Your task to perform on an android device: open app "Roku - Official Remote Control" Image 0: 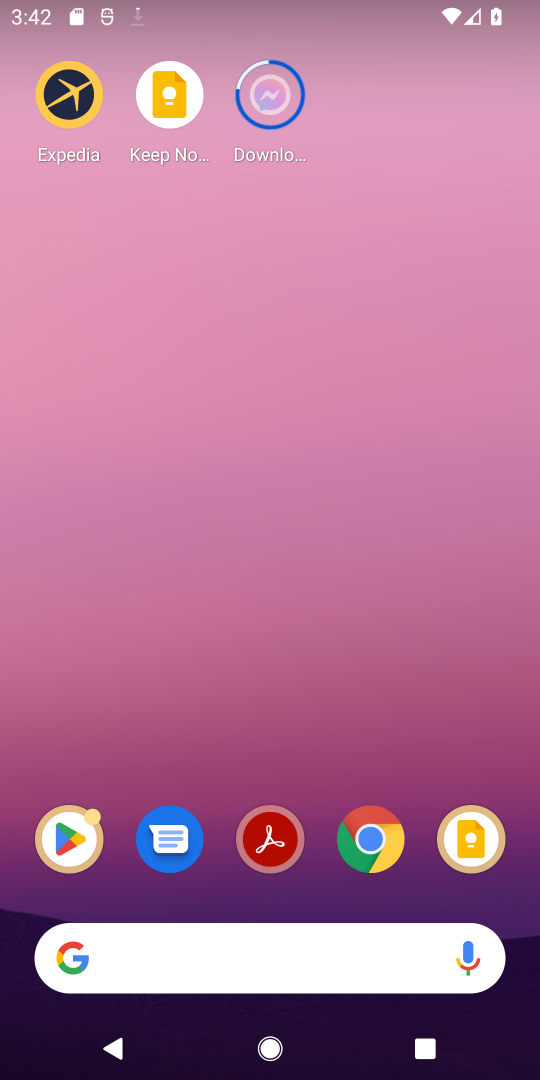
Step 0: click (73, 840)
Your task to perform on an android device: open app "Roku - Official Remote Control" Image 1: 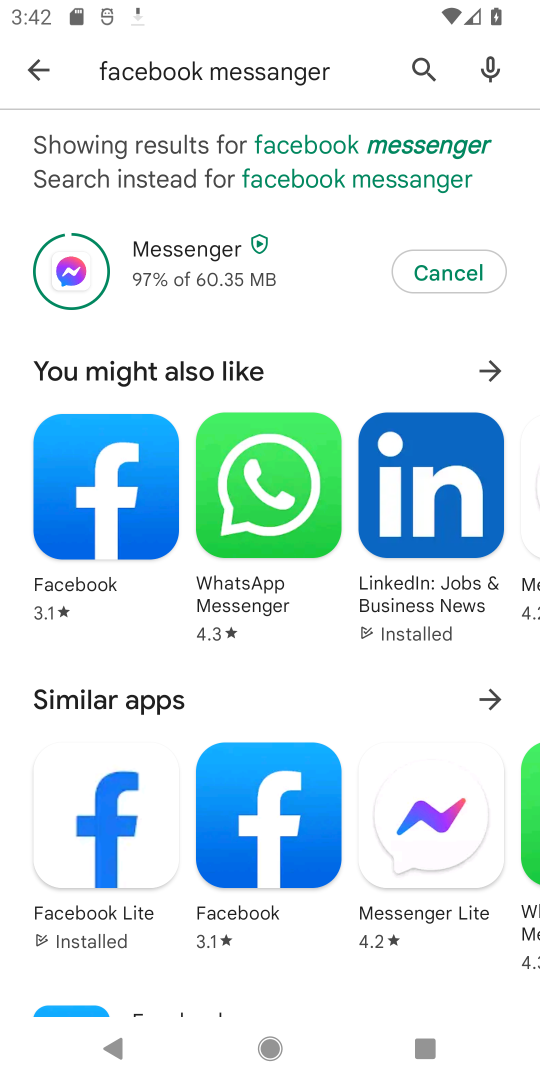
Step 1: click (430, 68)
Your task to perform on an android device: open app "Roku - Official Remote Control" Image 2: 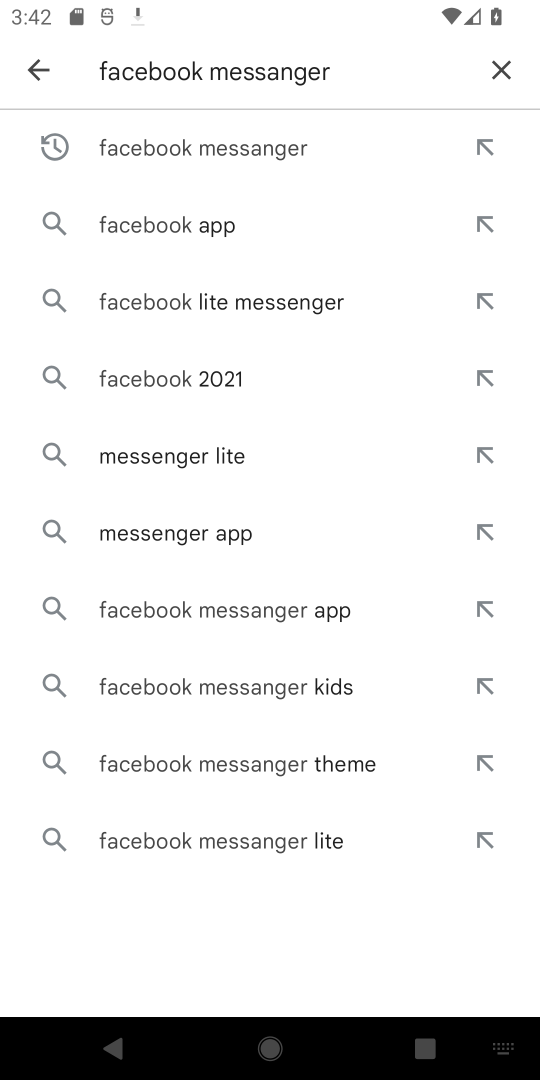
Step 2: click (491, 68)
Your task to perform on an android device: open app "Roku - Official Remote Control" Image 3: 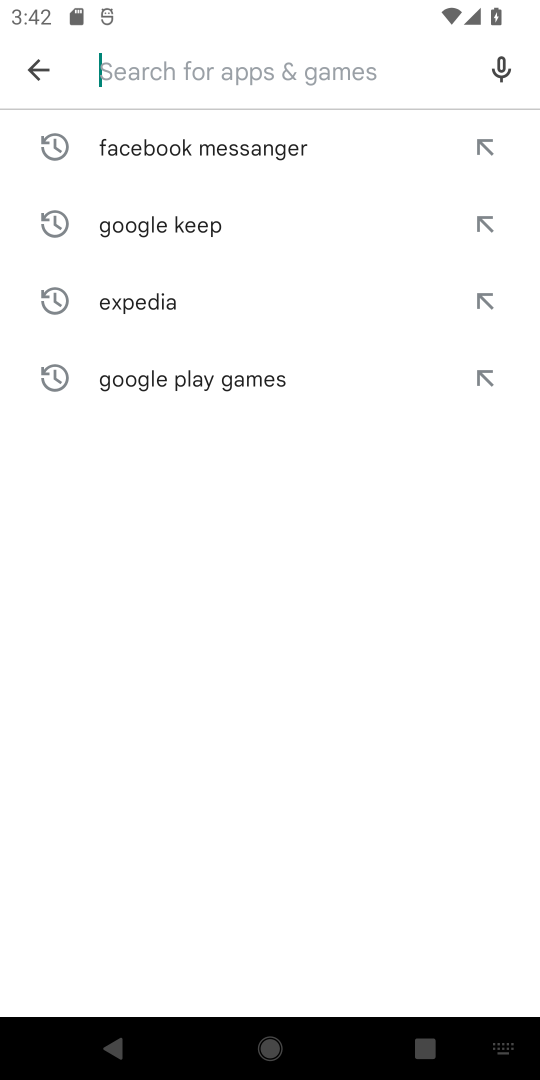
Step 3: type "roku"
Your task to perform on an android device: open app "Roku - Official Remote Control" Image 4: 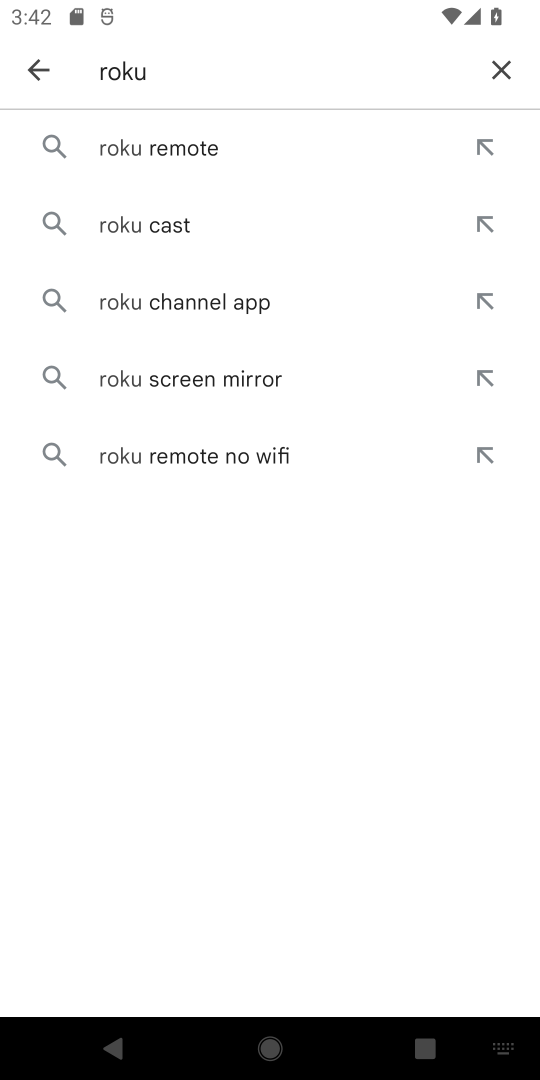
Step 4: click (218, 159)
Your task to perform on an android device: open app "Roku - Official Remote Control" Image 5: 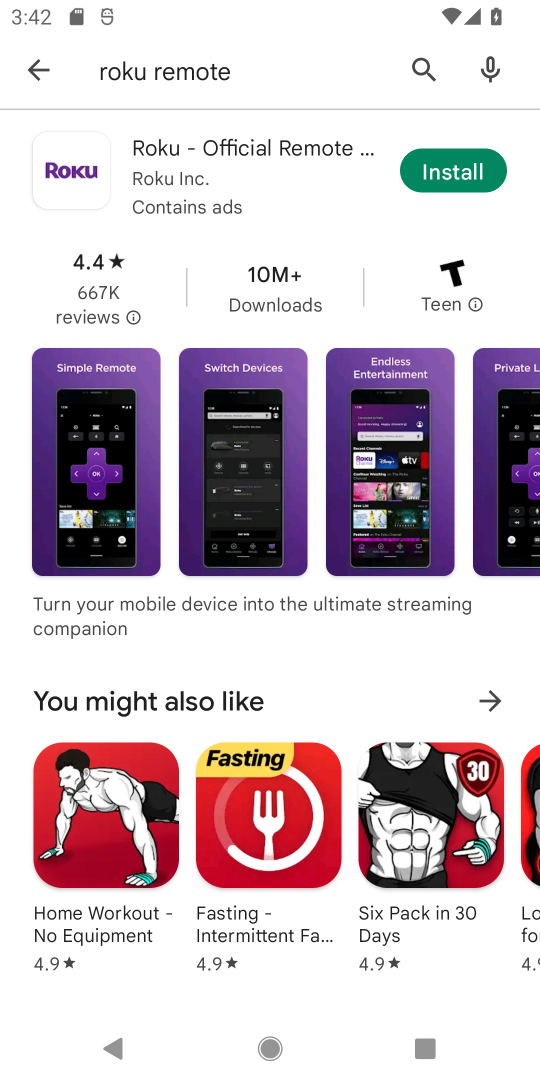
Step 5: click (459, 187)
Your task to perform on an android device: open app "Roku - Official Remote Control" Image 6: 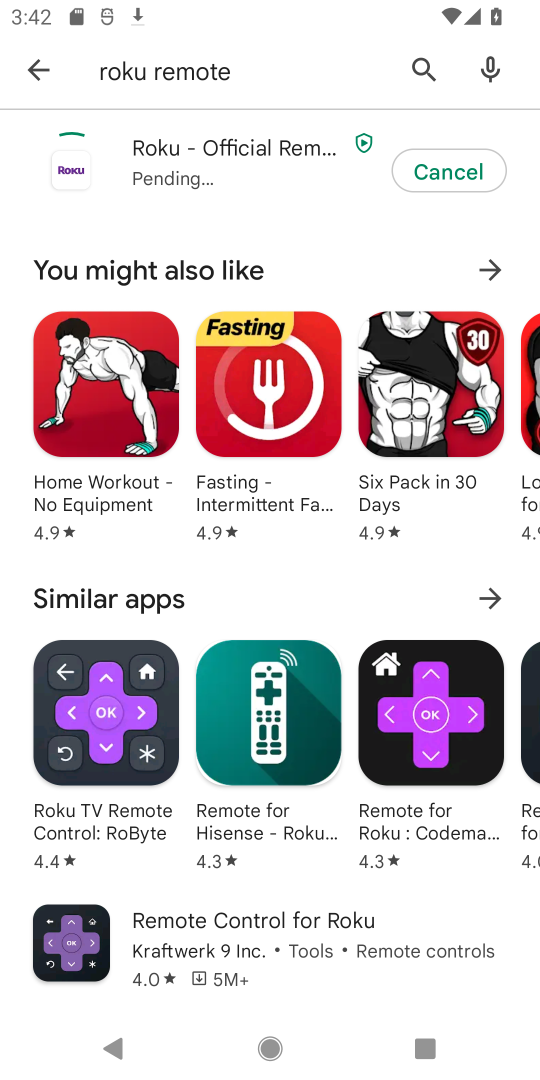
Step 6: task complete